Your task to perform on an android device: open app "Facebook Lite" (install if not already installed) and enter user name: "suppers@inbox.com" and password: "downplayed" Image 0: 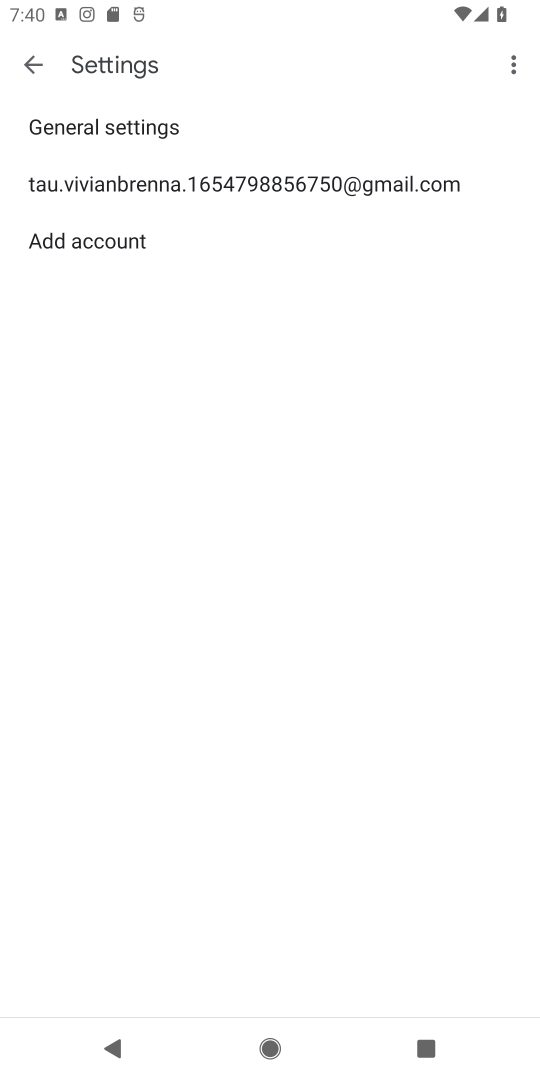
Step 0: press home button
Your task to perform on an android device: open app "Facebook Lite" (install if not already installed) and enter user name: "suppers@inbox.com" and password: "downplayed" Image 1: 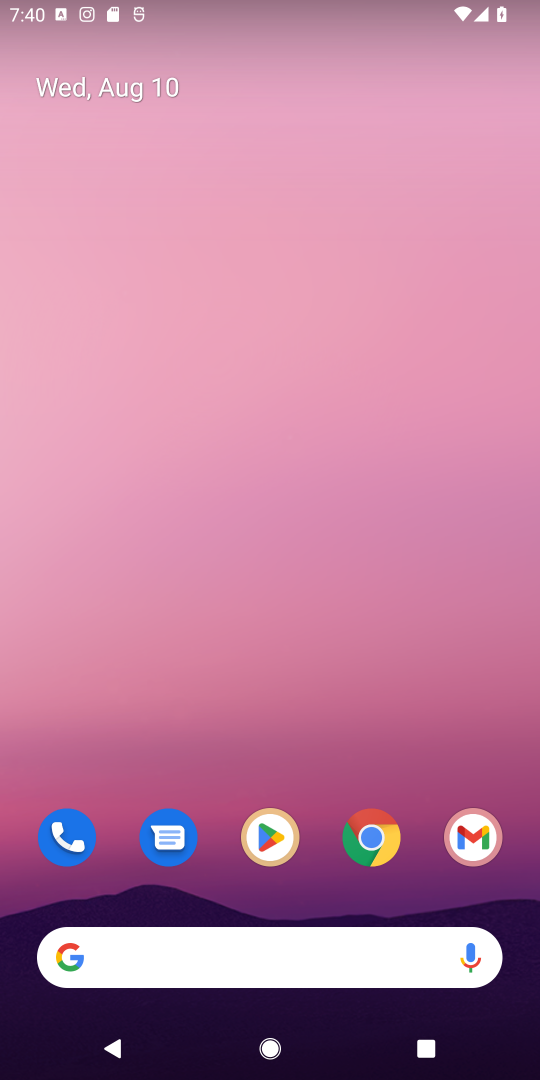
Step 1: click (264, 840)
Your task to perform on an android device: open app "Facebook Lite" (install if not already installed) and enter user name: "suppers@inbox.com" and password: "downplayed" Image 2: 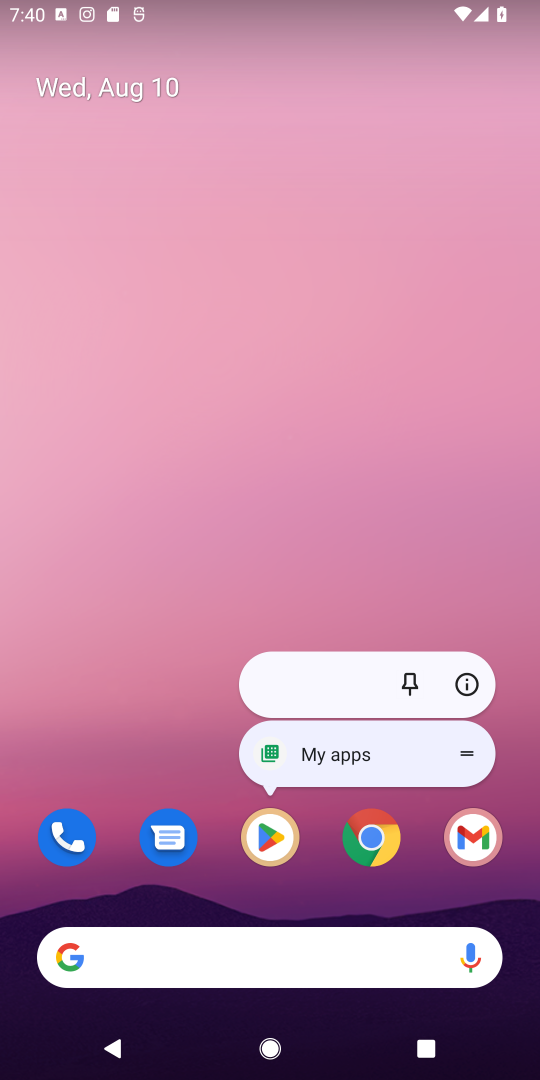
Step 2: click (268, 836)
Your task to perform on an android device: open app "Facebook Lite" (install if not already installed) and enter user name: "suppers@inbox.com" and password: "downplayed" Image 3: 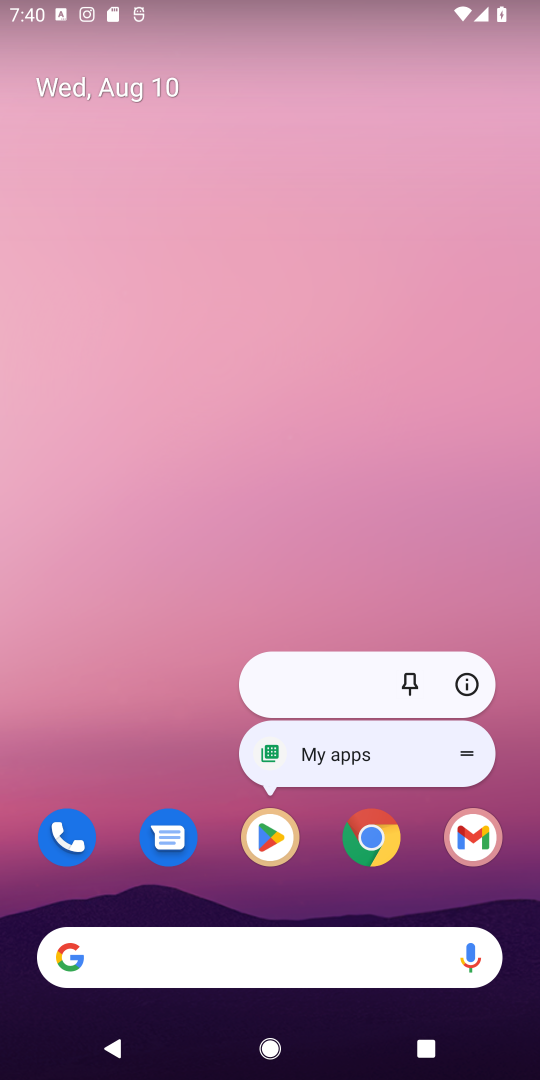
Step 3: click (268, 835)
Your task to perform on an android device: open app "Facebook Lite" (install if not already installed) and enter user name: "suppers@inbox.com" and password: "downplayed" Image 4: 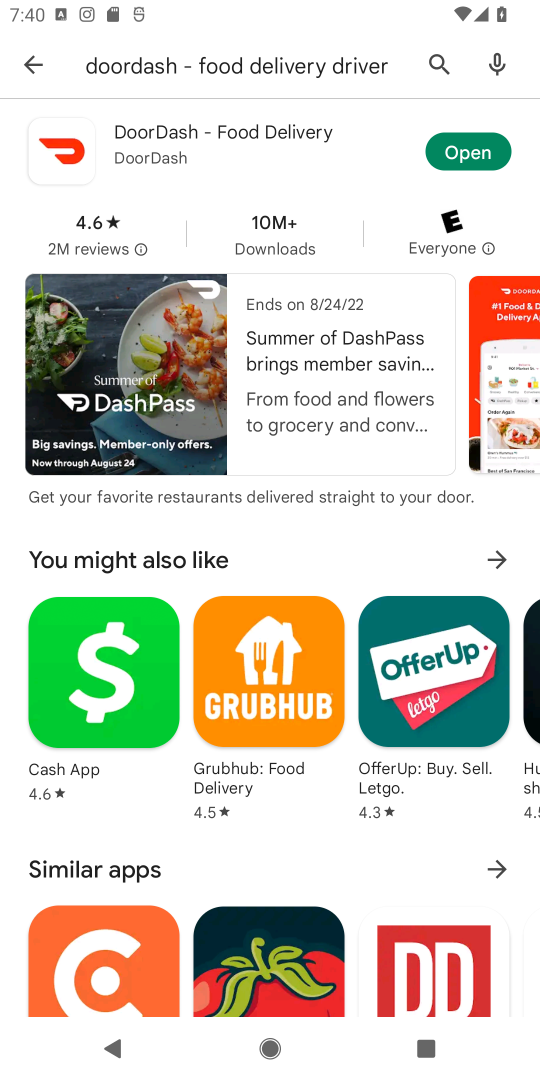
Step 4: click (435, 66)
Your task to perform on an android device: open app "Facebook Lite" (install if not already installed) and enter user name: "suppers@inbox.com" and password: "downplayed" Image 5: 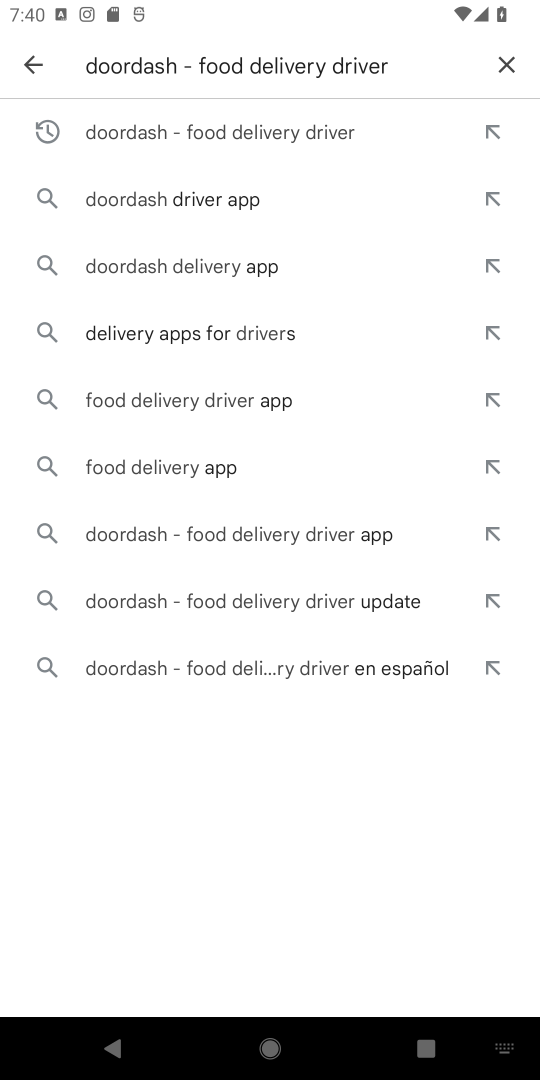
Step 5: click (500, 64)
Your task to perform on an android device: open app "Facebook Lite" (install if not already installed) and enter user name: "suppers@inbox.com" and password: "downplayed" Image 6: 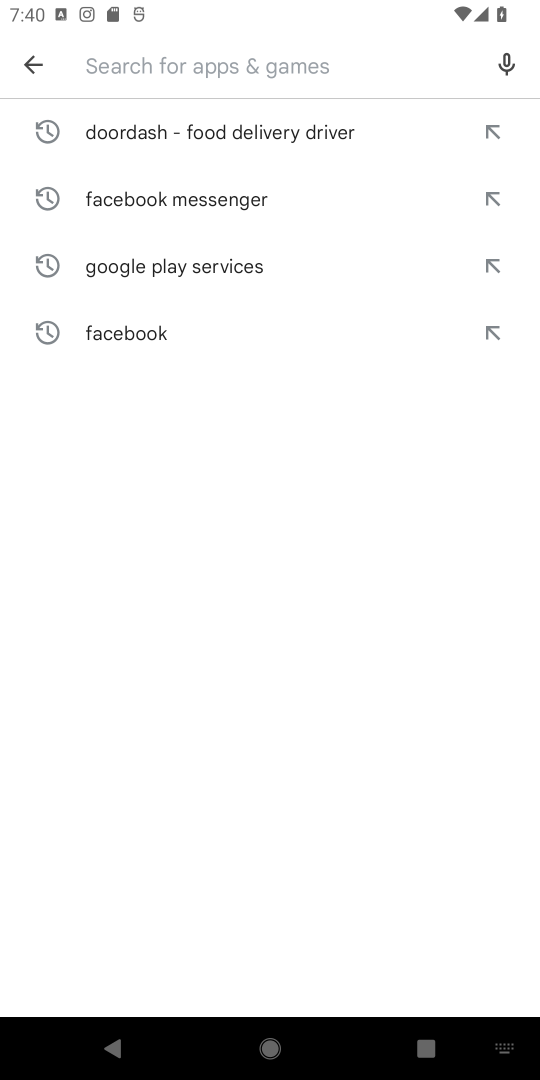
Step 6: type "Facebook Lite"
Your task to perform on an android device: open app "Facebook Lite" (install if not already installed) and enter user name: "suppers@inbox.com" and password: "downplayed" Image 7: 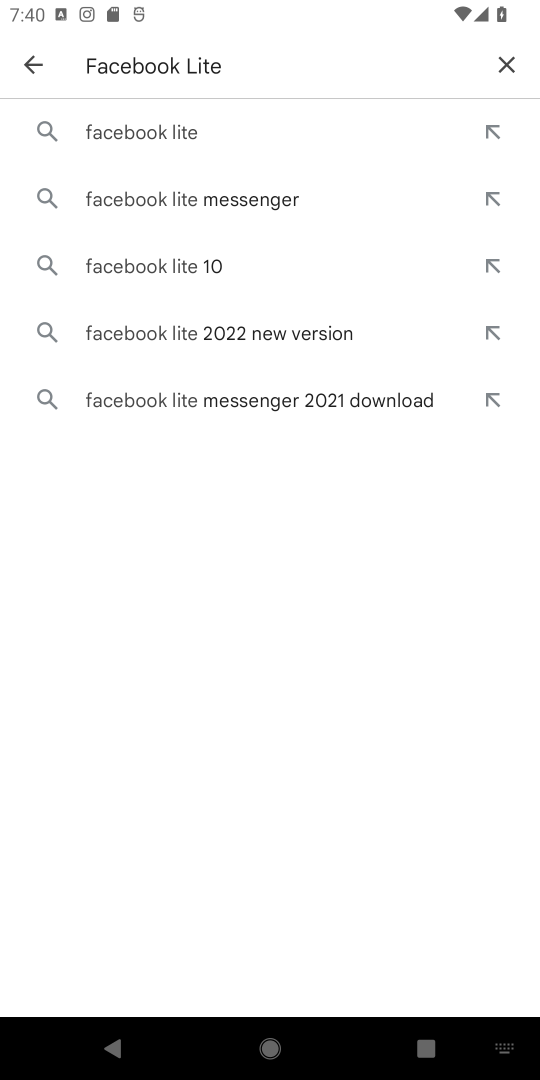
Step 7: click (177, 134)
Your task to perform on an android device: open app "Facebook Lite" (install if not already installed) and enter user name: "suppers@inbox.com" and password: "downplayed" Image 8: 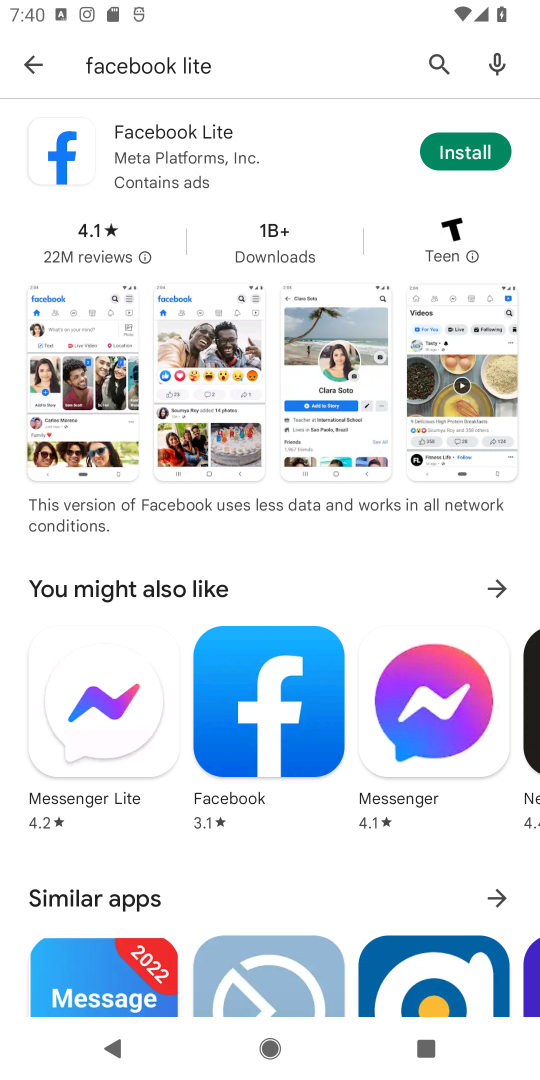
Step 8: click (474, 145)
Your task to perform on an android device: open app "Facebook Lite" (install if not already installed) and enter user name: "suppers@inbox.com" and password: "downplayed" Image 9: 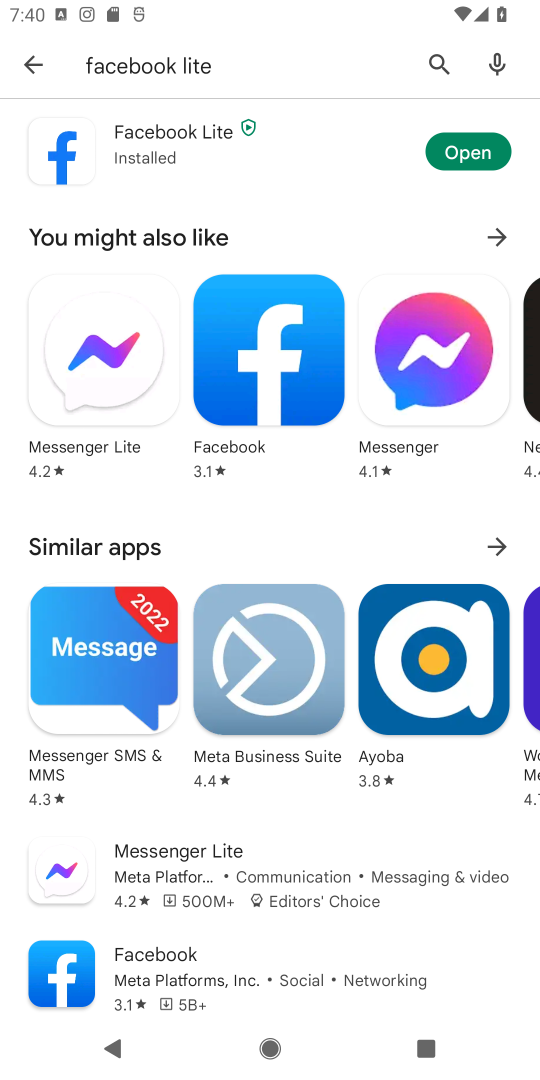
Step 9: click (467, 149)
Your task to perform on an android device: open app "Facebook Lite" (install if not already installed) and enter user name: "suppers@inbox.com" and password: "downplayed" Image 10: 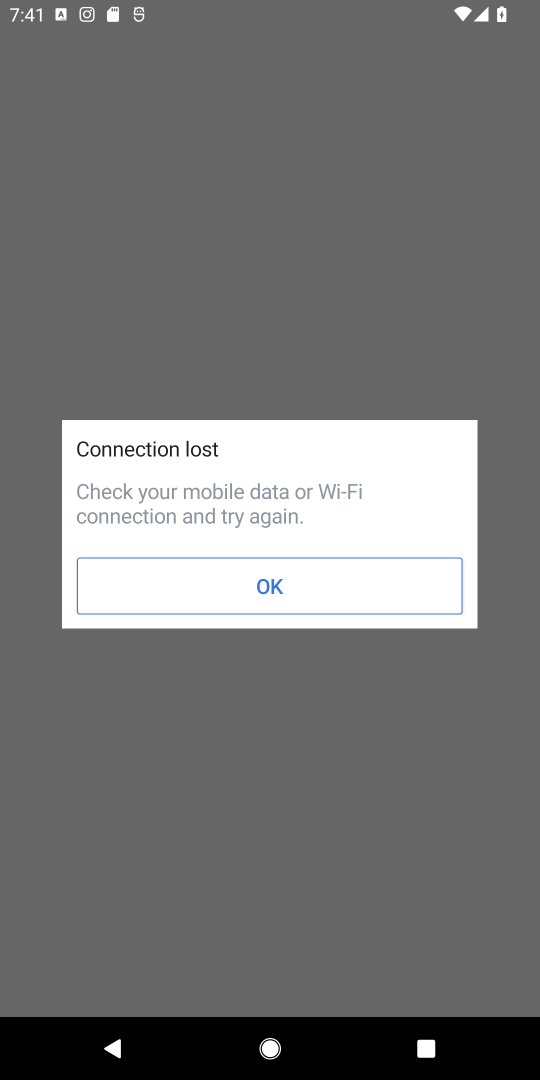
Step 10: click (328, 585)
Your task to perform on an android device: open app "Facebook Lite" (install if not already installed) and enter user name: "suppers@inbox.com" and password: "downplayed" Image 11: 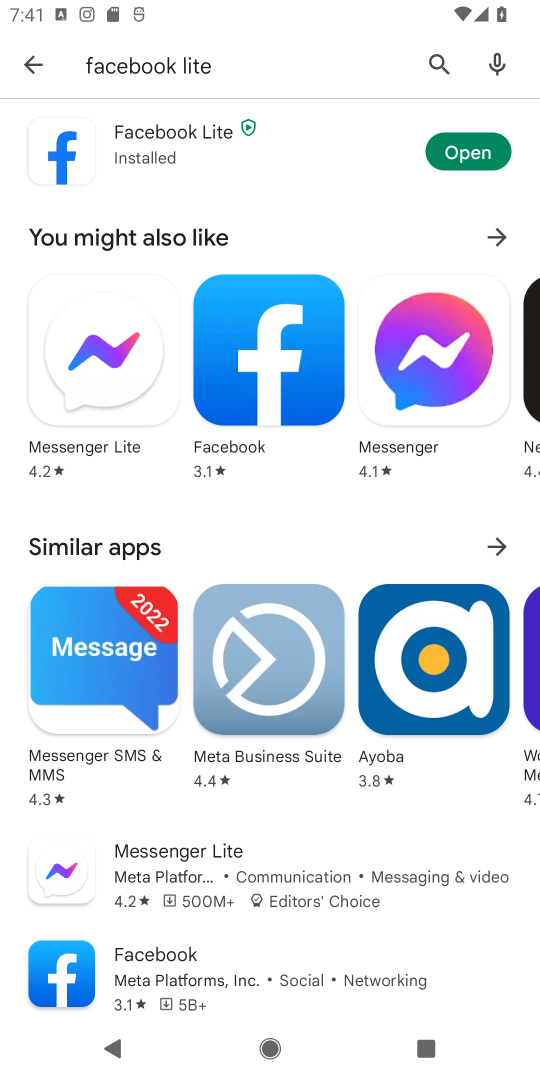
Step 11: task complete